Your task to perform on an android device: turn smart compose on in the gmail app Image 0: 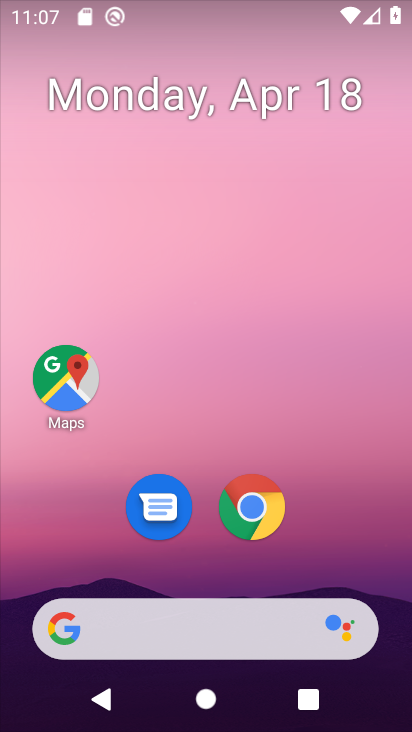
Step 0: drag from (348, 535) to (322, 54)
Your task to perform on an android device: turn smart compose on in the gmail app Image 1: 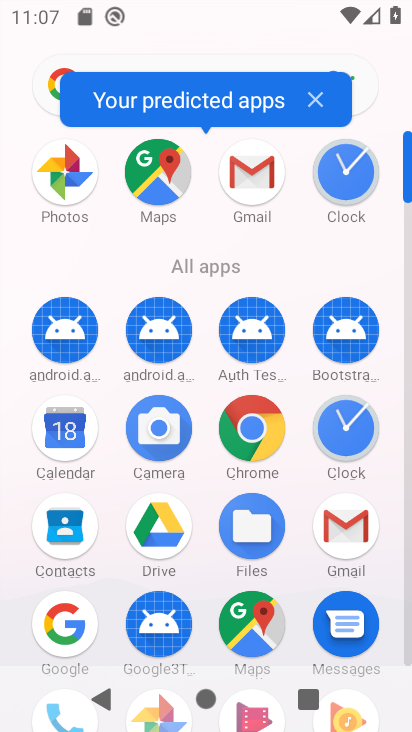
Step 1: click (350, 535)
Your task to perform on an android device: turn smart compose on in the gmail app Image 2: 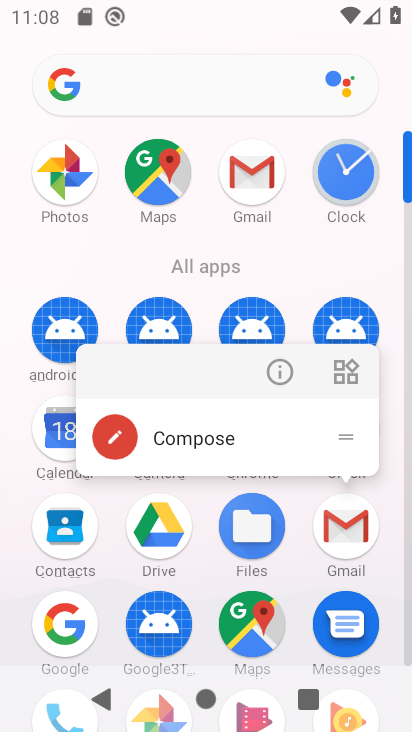
Step 2: click (344, 530)
Your task to perform on an android device: turn smart compose on in the gmail app Image 3: 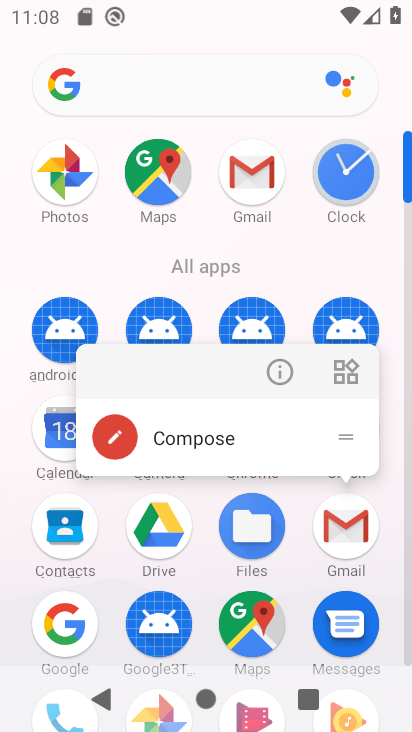
Step 3: click (350, 557)
Your task to perform on an android device: turn smart compose on in the gmail app Image 4: 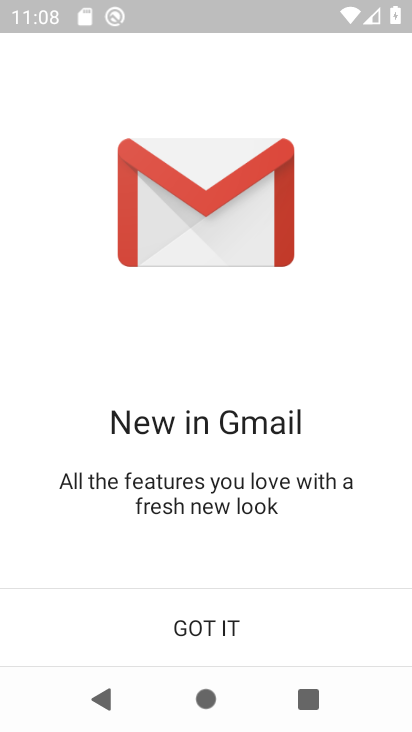
Step 4: click (217, 637)
Your task to perform on an android device: turn smart compose on in the gmail app Image 5: 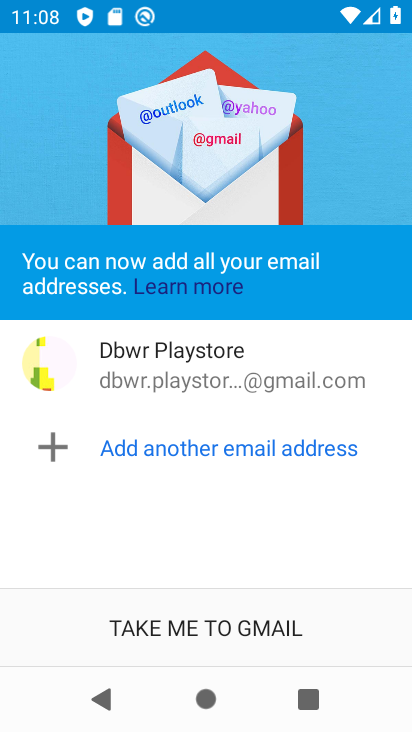
Step 5: click (209, 633)
Your task to perform on an android device: turn smart compose on in the gmail app Image 6: 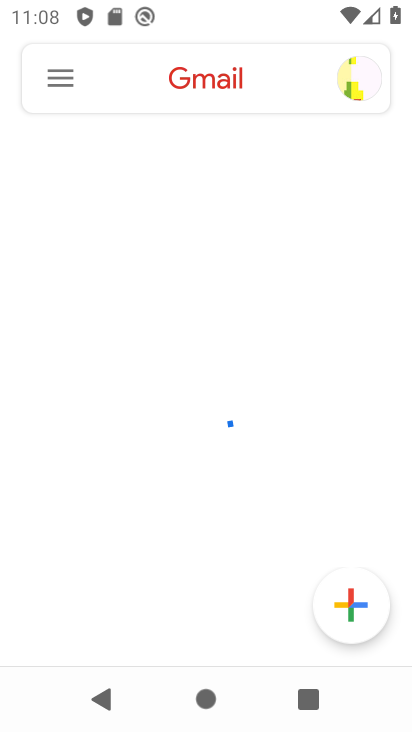
Step 6: click (60, 81)
Your task to perform on an android device: turn smart compose on in the gmail app Image 7: 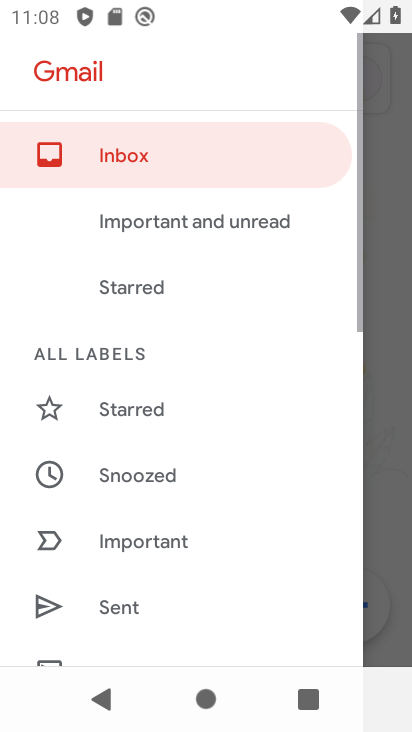
Step 7: drag from (180, 574) to (169, 204)
Your task to perform on an android device: turn smart compose on in the gmail app Image 8: 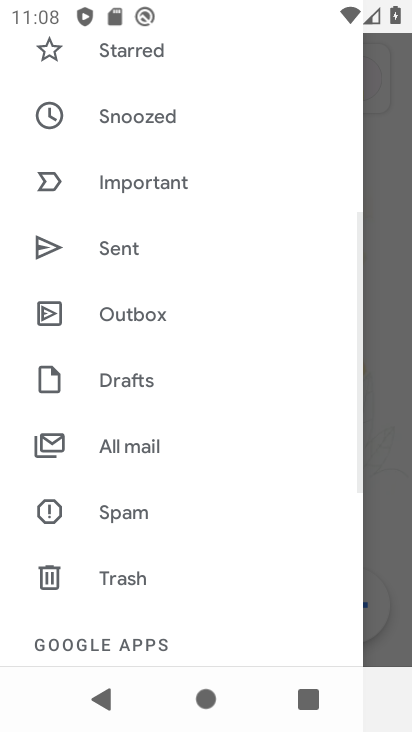
Step 8: drag from (176, 637) to (201, 284)
Your task to perform on an android device: turn smart compose on in the gmail app Image 9: 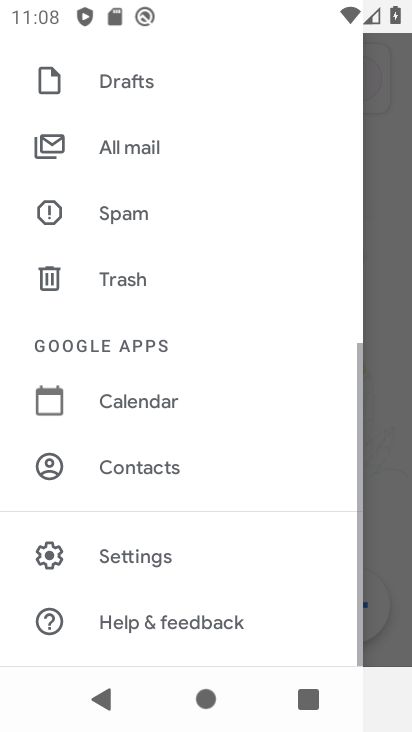
Step 9: click (174, 566)
Your task to perform on an android device: turn smart compose on in the gmail app Image 10: 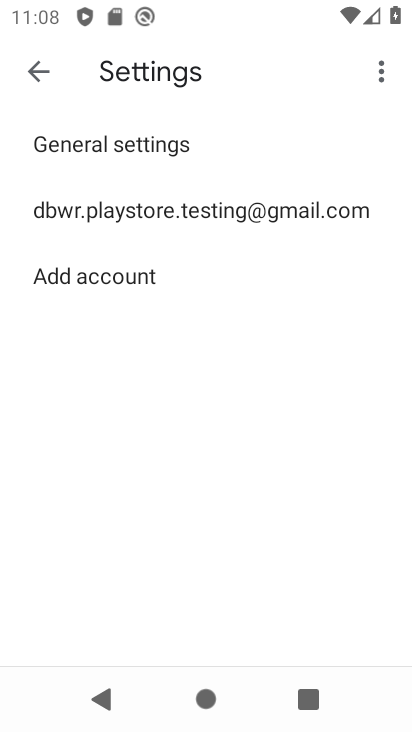
Step 10: click (146, 222)
Your task to perform on an android device: turn smart compose on in the gmail app Image 11: 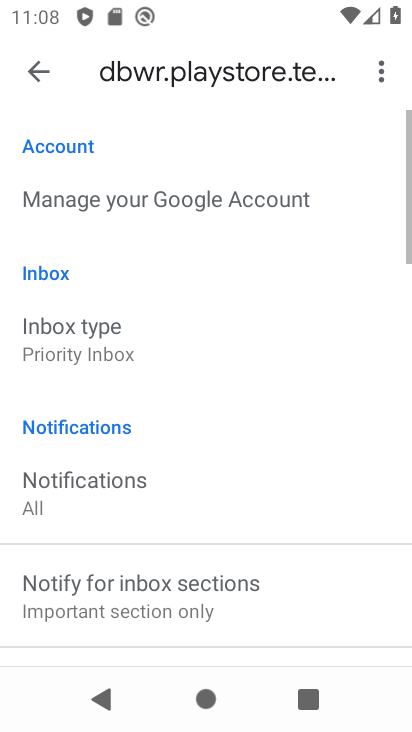
Step 11: task complete